Your task to perform on an android device: open the mobile data screen to see how much data has been used Image 0: 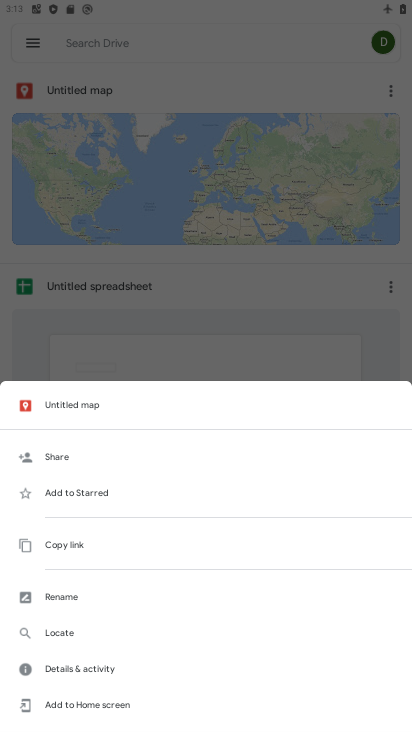
Step 0: press home button
Your task to perform on an android device: open the mobile data screen to see how much data has been used Image 1: 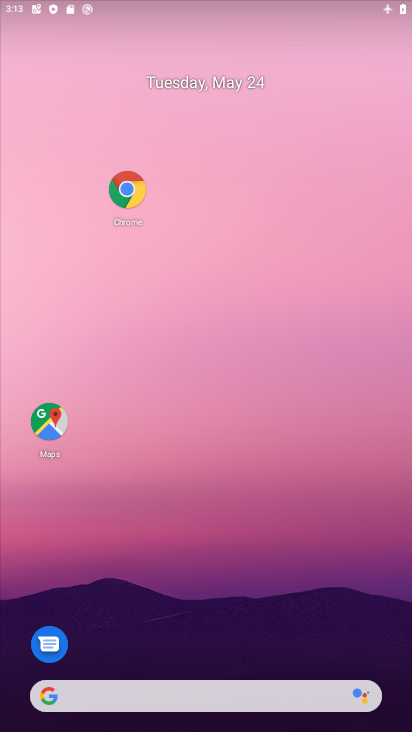
Step 1: drag from (199, 566) to (221, 52)
Your task to perform on an android device: open the mobile data screen to see how much data has been used Image 2: 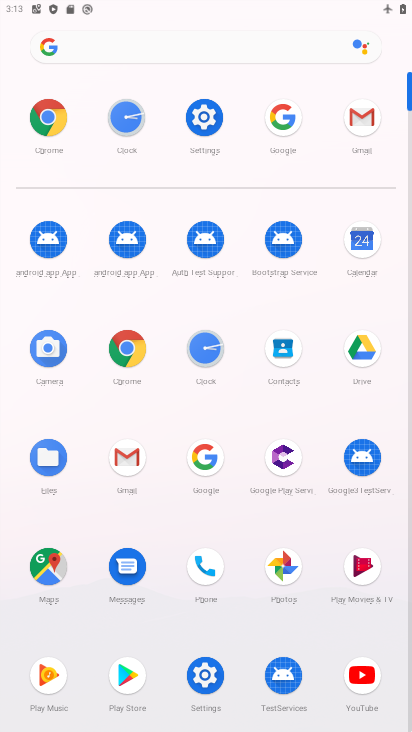
Step 2: click (206, 113)
Your task to perform on an android device: open the mobile data screen to see how much data has been used Image 3: 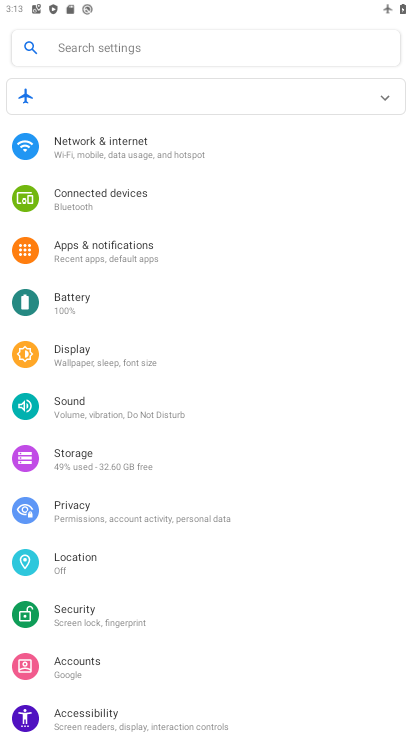
Step 3: click (122, 151)
Your task to perform on an android device: open the mobile data screen to see how much data has been used Image 4: 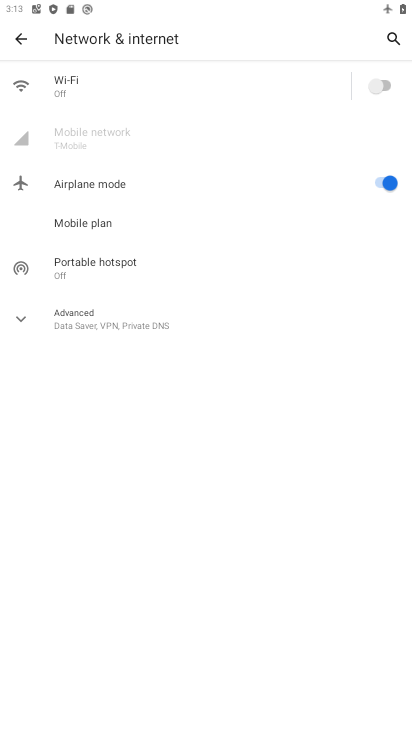
Step 4: task complete